Your task to perform on an android device: Open the calendar and show me this week's events? Image 0: 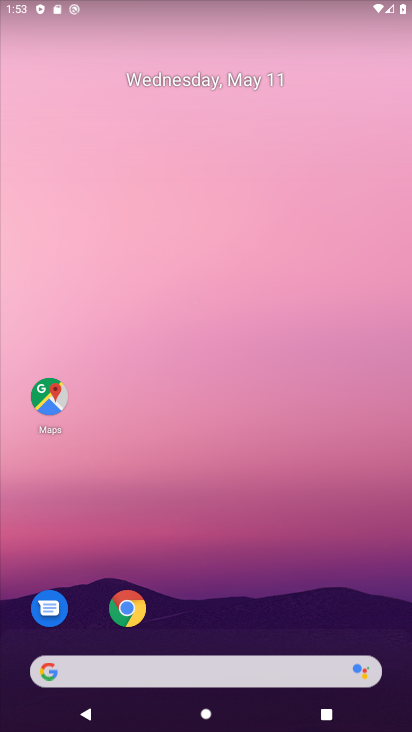
Step 0: drag from (287, 546) to (316, 216)
Your task to perform on an android device: Open the calendar and show me this week's events? Image 1: 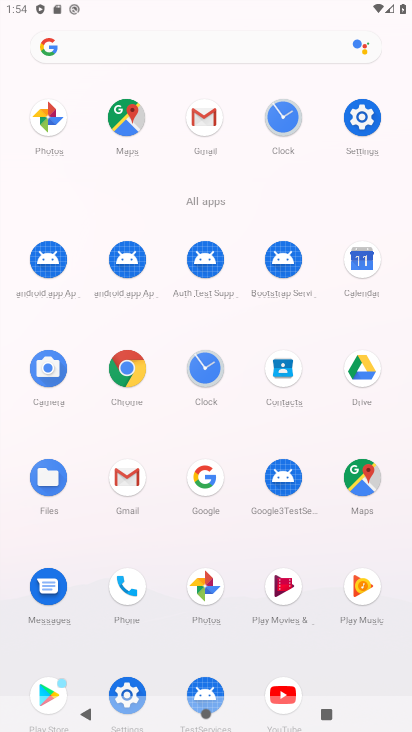
Step 1: click (350, 268)
Your task to perform on an android device: Open the calendar and show me this week's events? Image 2: 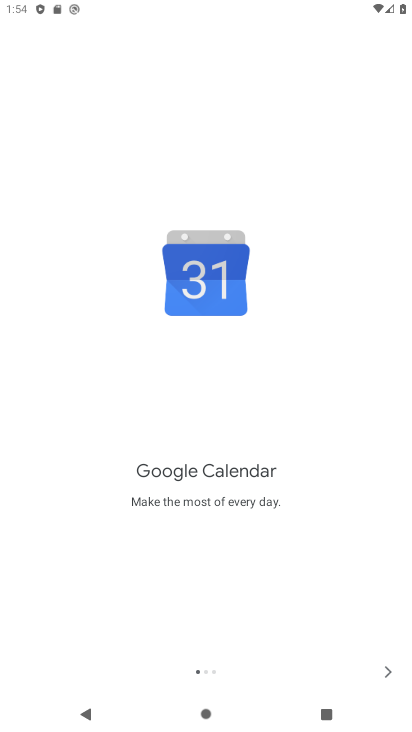
Step 2: click (374, 666)
Your task to perform on an android device: Open the calendar and show me this week's events? Image 3: 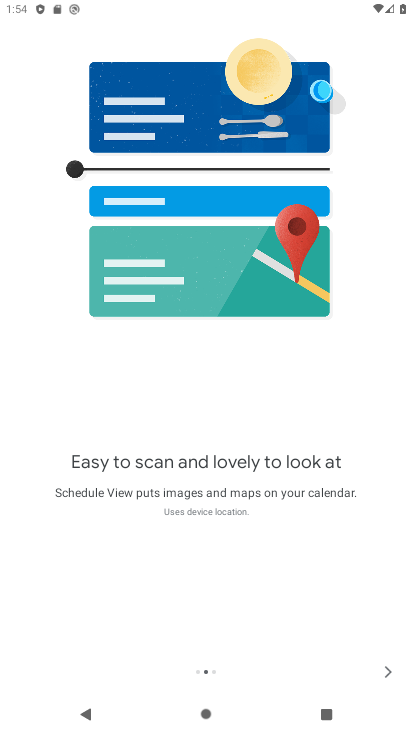
Step 3: click (383, 679)
Your task to perform on an android device: Open the calendar and show me this week's events? Image 4: 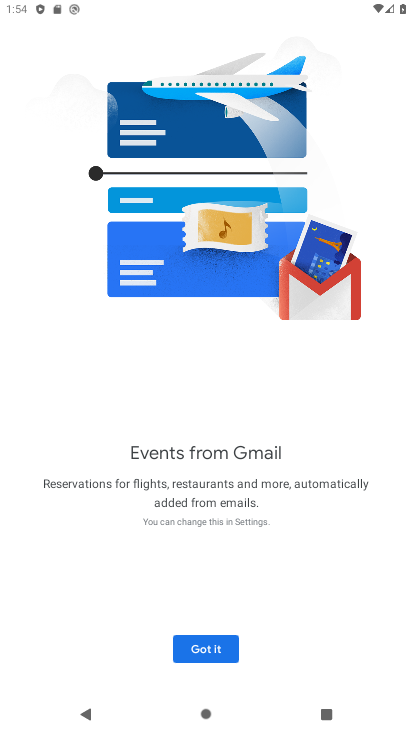
Step 4: click (217, 659)
Your task to perform on an android device: Open the calendar and show me this week's events? Image 5: 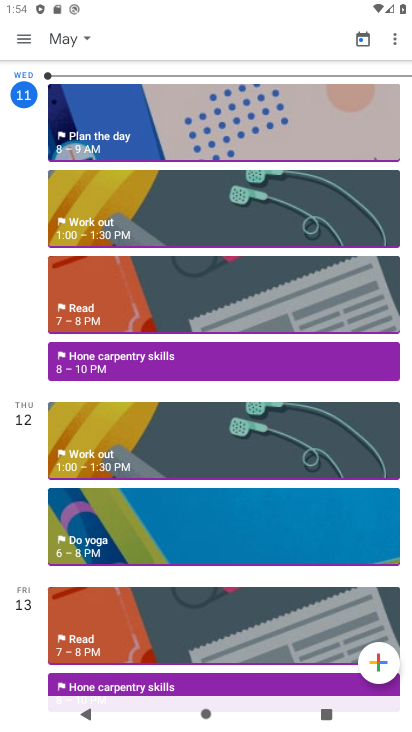
Step 5: click (72, 32)
Your task to perform on an android device: Open the calendar and show me this week's events? Image 6: 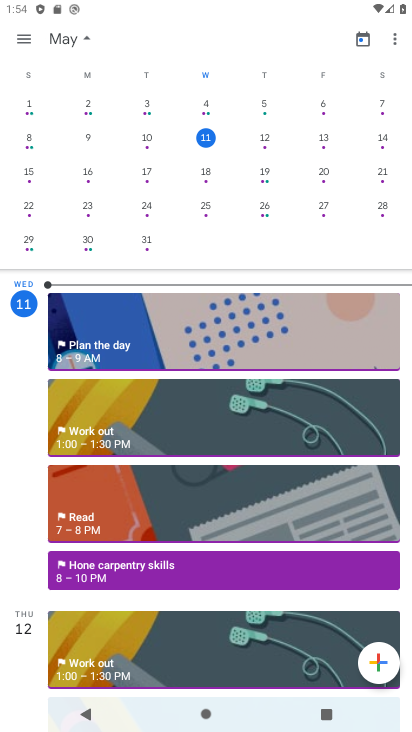
Step 6: click (270, 142)
Your task to perform on an android device: Open the calendar and show me this week's events? Image 7: 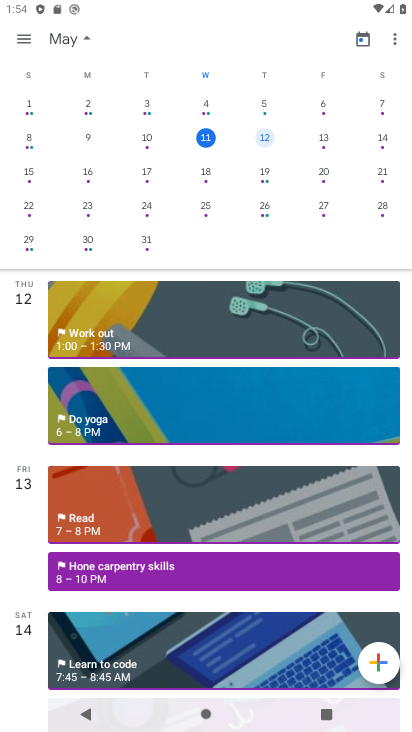
Step 7: click (333, 147)
Your task to perform on an android device: Open the calendar and show me this week's events? Image 8: 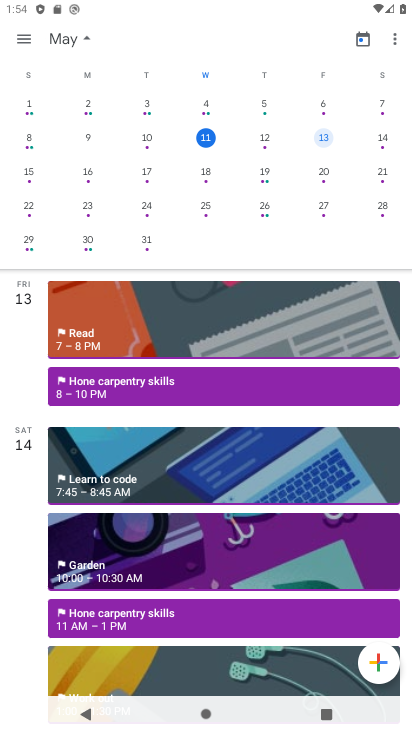
Step 8: click (387, 145)
Your task to perform on an android device: Open the calendar and show me this week's events? Image 9: 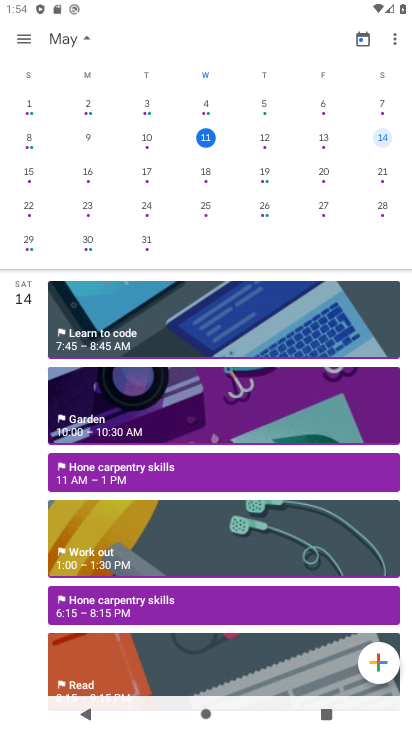
Step 9: task complete